Your task to perform on an android device: toggle wifi Image 0: 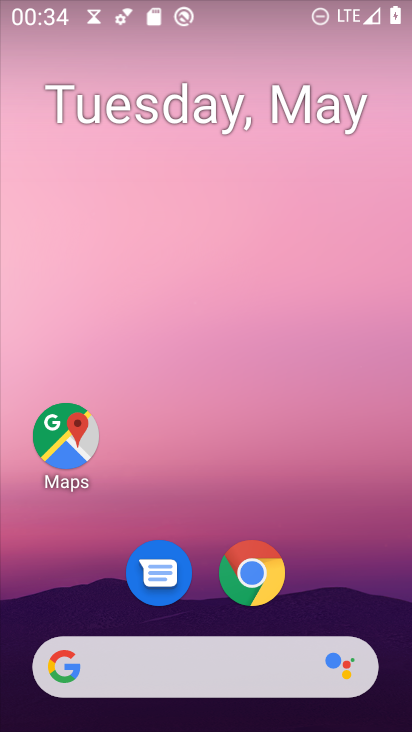
Step 0: click (215, 109)
Your task to perform on an android device: toggle wifi Image 1: 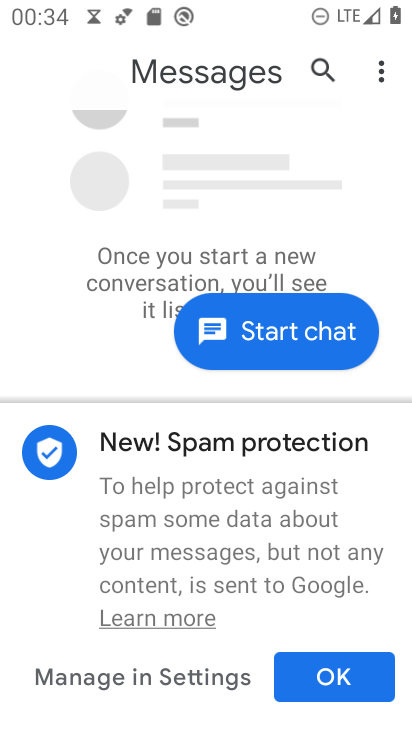
Step 1: press home button
Your task to perform on an android device: toggle wifi Image 2: 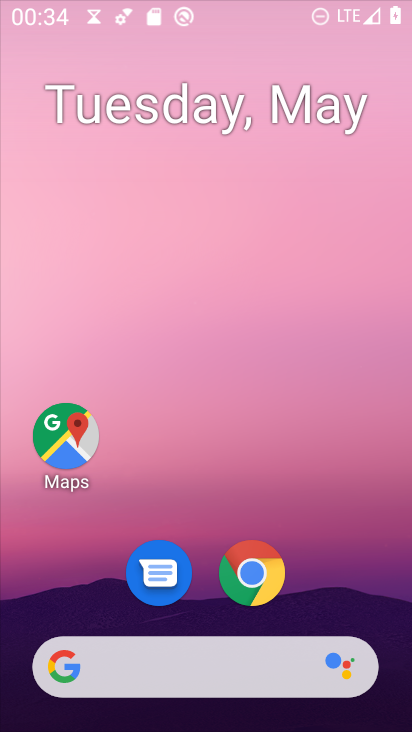
Step 2: drag from (313, 554) to (260, 82)
Your task to perform on an android device: toggle wifi Image 3: 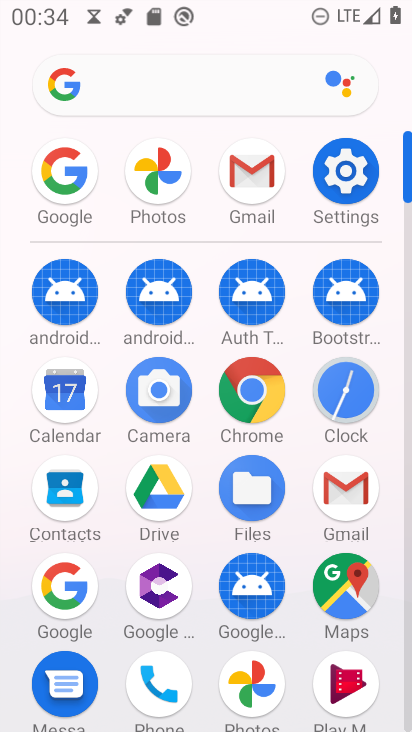
Step 3: click (263, 689)
Your task to perform on an android device: toggle wifi Image 4: 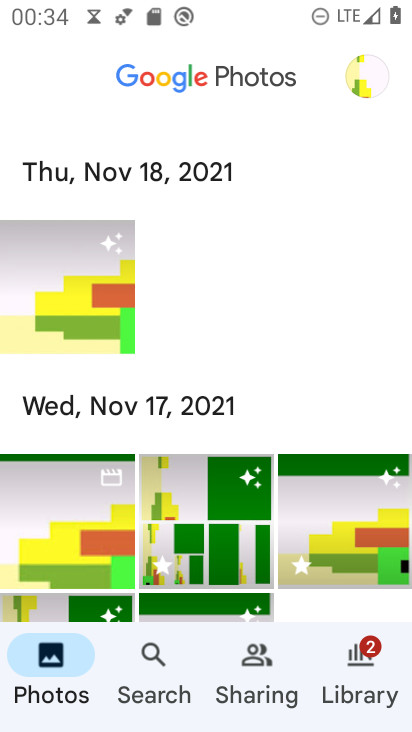
Step 4: press home button
Your task to perform on an android device: toggle wifi Image 5: 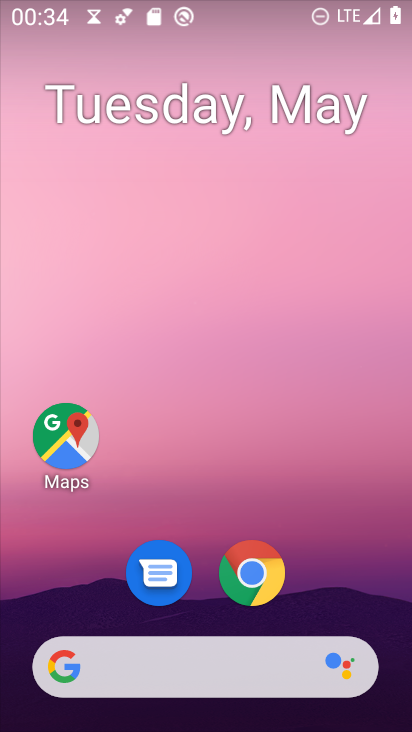
Step 5: drag from (367, 551) to (234, 88)
Your task to perform on an android device: toggle wifi Image 6: 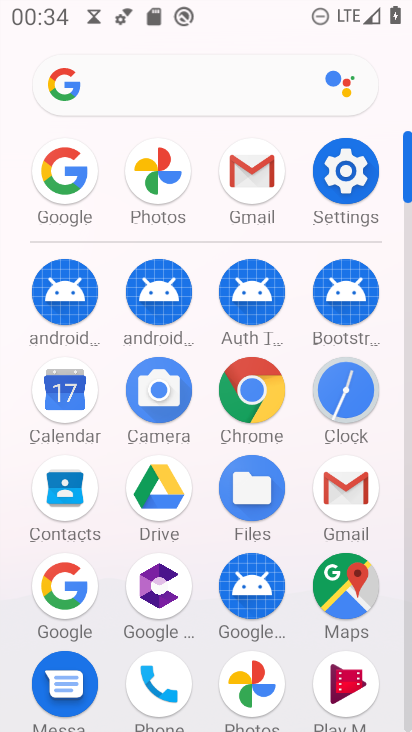
Step 6: click (343, 174)
Your task to perform on an android device: toggle wifi Image 7: 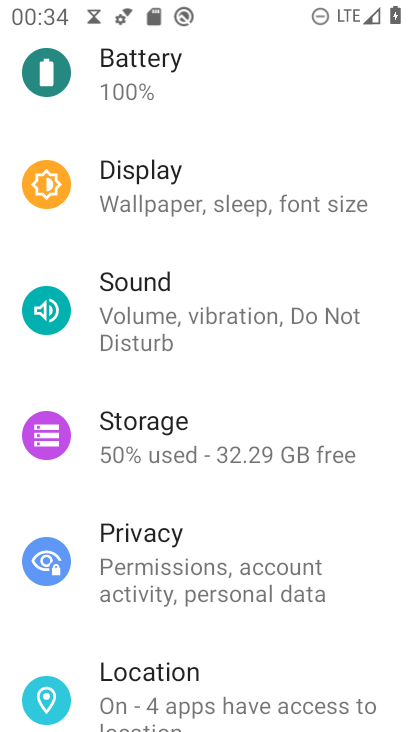
Step 7: drag from (226, 184) to (279, 534)
Your task to perform on an android device: toggle wifi Image 8: 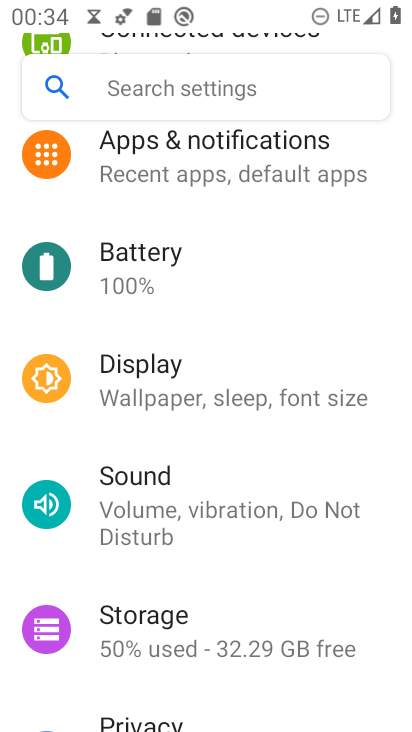
Step 8: drag from (245, 259) to (249, 614)
Your task to perform on an android device: toggle wifi Image 9: 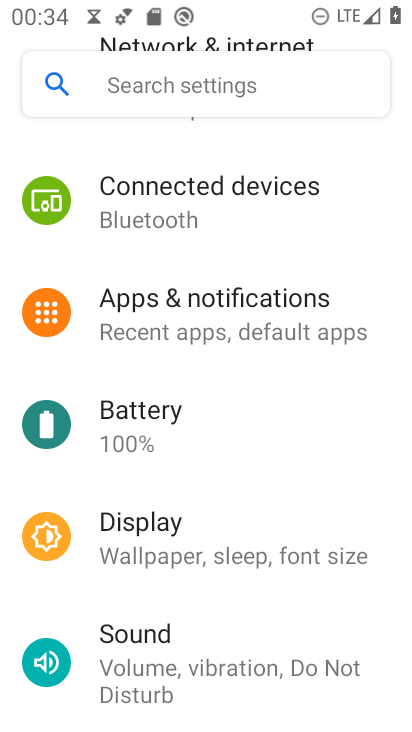
Step 9: drag from (239, 269) to (195, 584)
Your task to perform on an android device: toggle wifi Image 10: 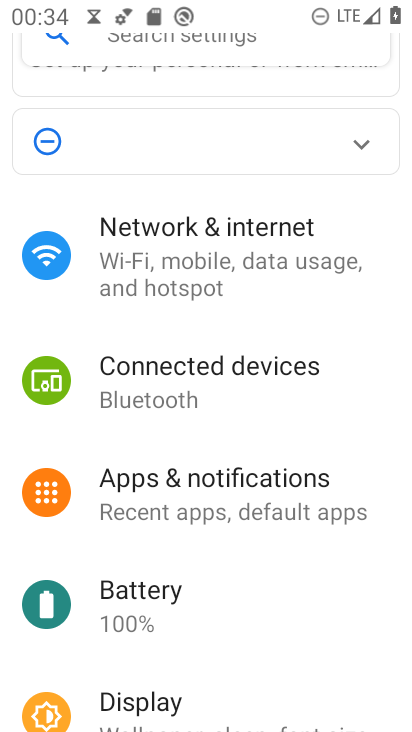
Step 10: click (220, 269)
Your task to perform on an android device: toggle wifi Image 11: 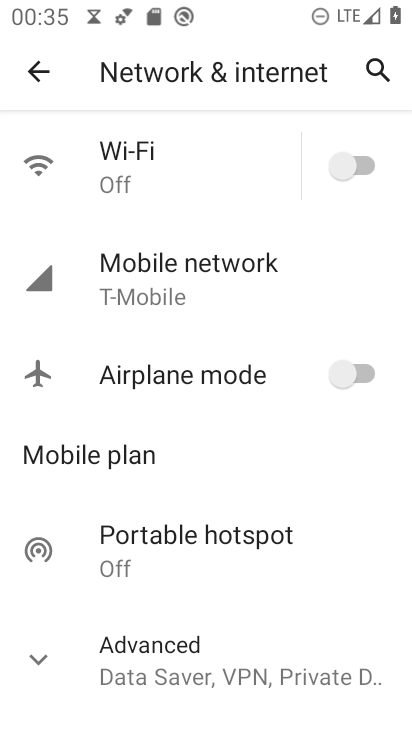
Step 11: click (329, 165)
Your task to perform on an android device: toggle wifi Image 12: 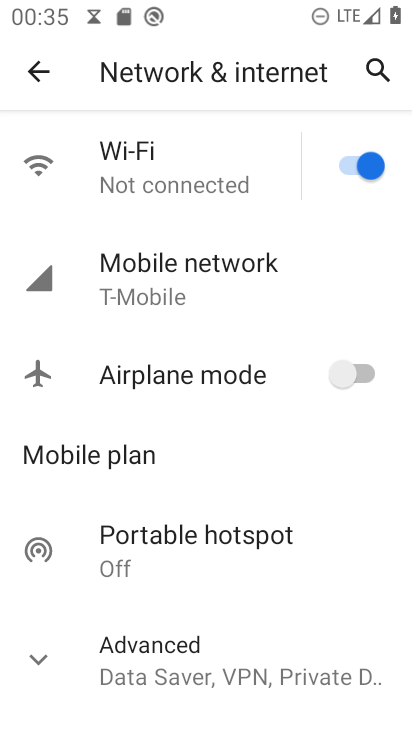
Step 12: task complete